Your task to perform on an android device: Search for Italian restaurants on Maps Image 0: 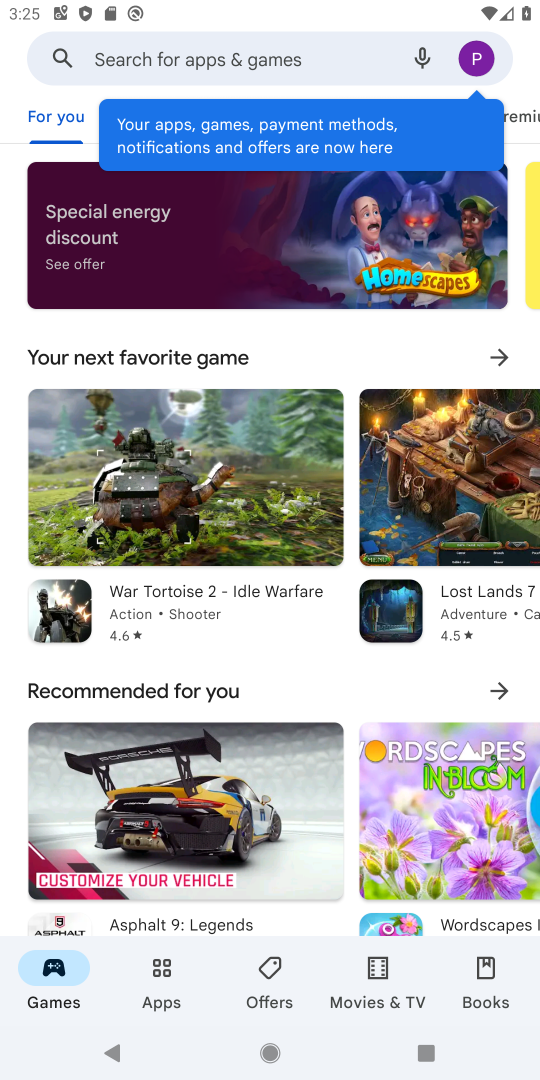
Step 0: press home button
Your task to perform on an android device: Search for Italian restaurants on Maps Image 1: 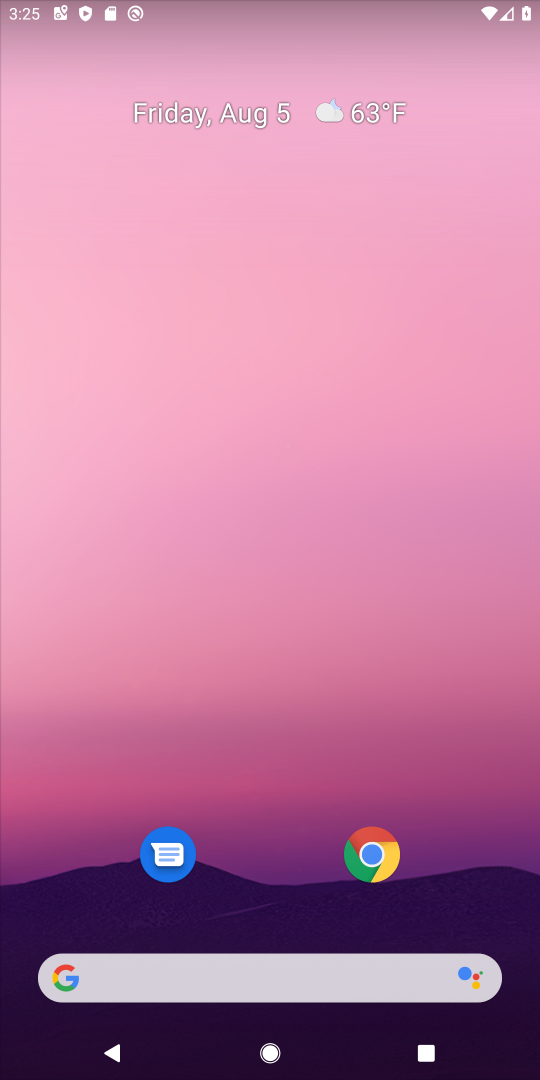
Step 1: drag from (47, 1015) to (288, 513)
Your task to perform on an android device: Search for Italian restaurants on Maps Image 2: 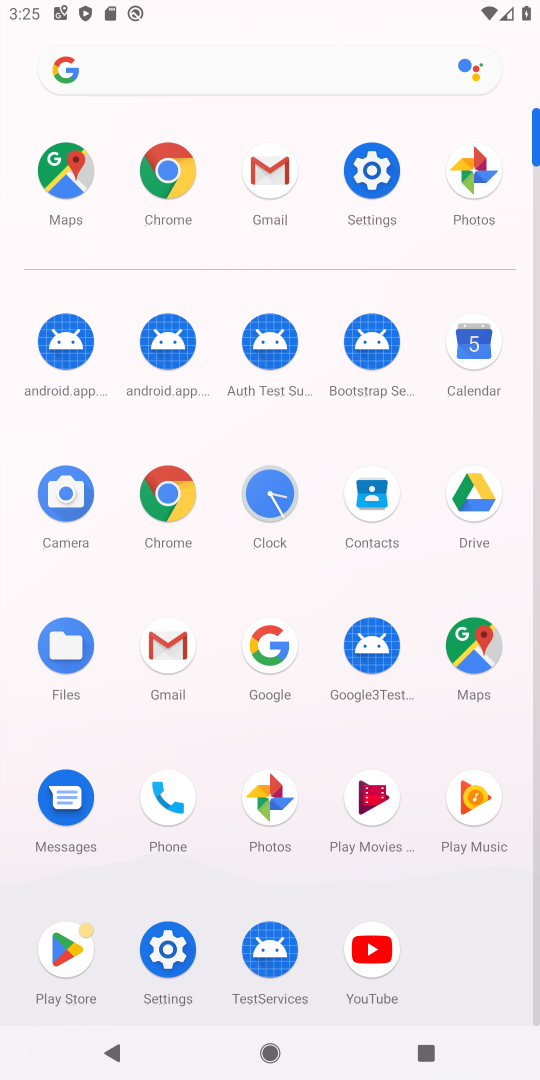
Step 2: click (484, 658)
Your task to perform on an android device: Search for Italian restaurants on Maps Image 3: 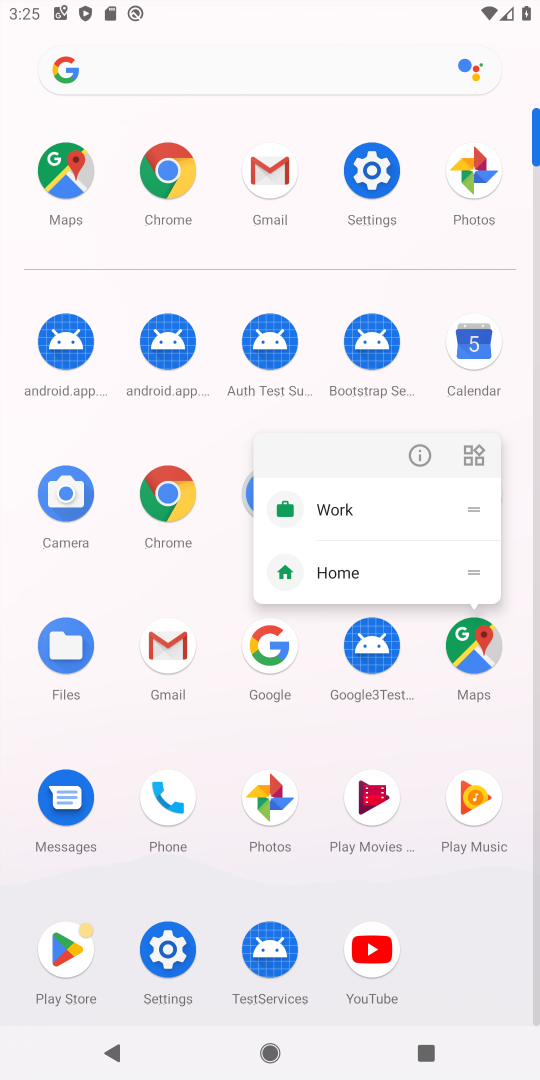
Step 3: click (484, 658)
Your task to perform on an android device: Search for Italian restaurants on Maps Image 4: 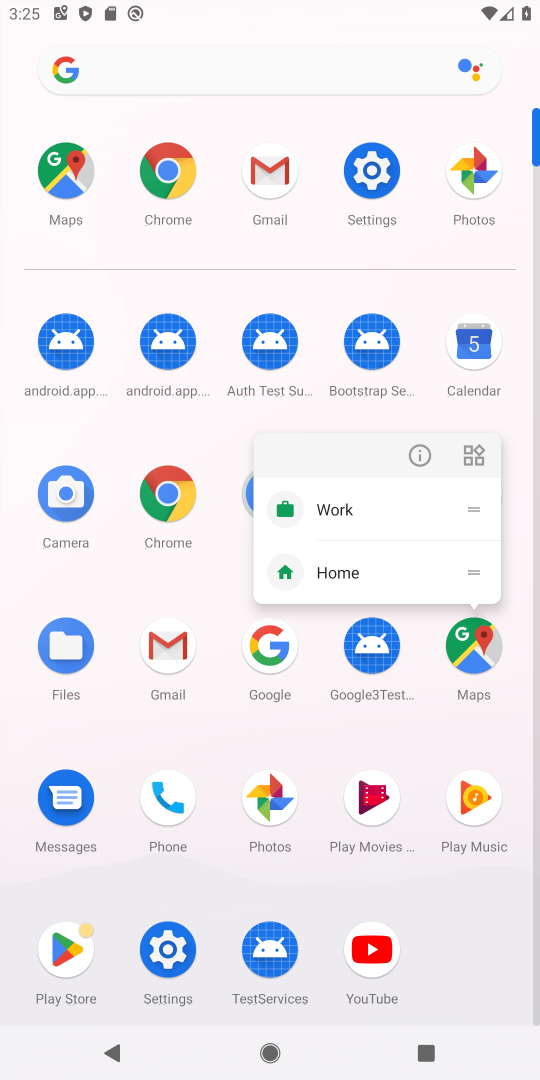
Step 4: click (484, 658)
Your task to perform on an android device: Search for Italian restaurants on Maps Image 5: 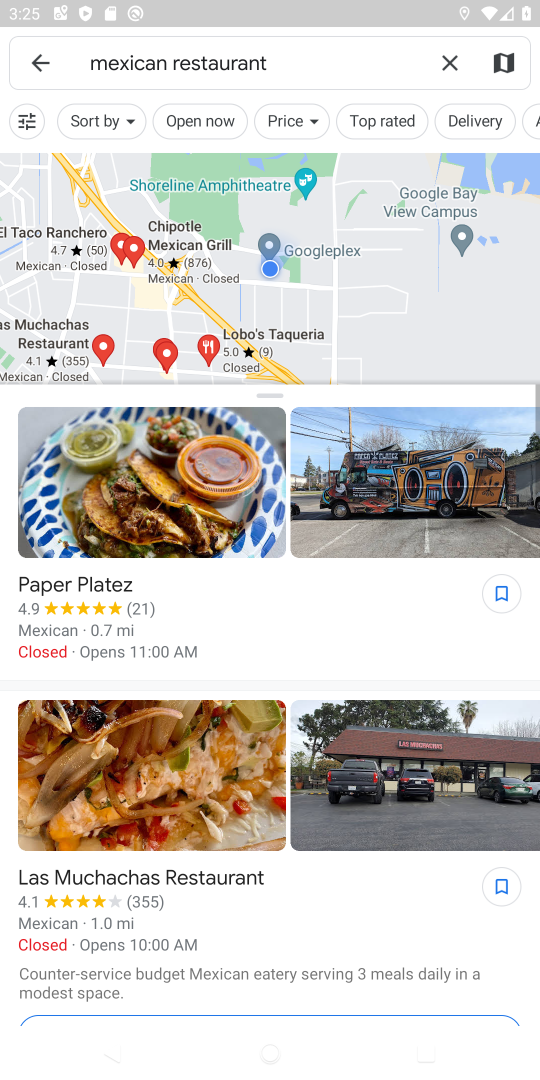
Step 5: click (447, 53)
Your task to perform on an android device: Search for Italian restaurants on Maps Image 6: 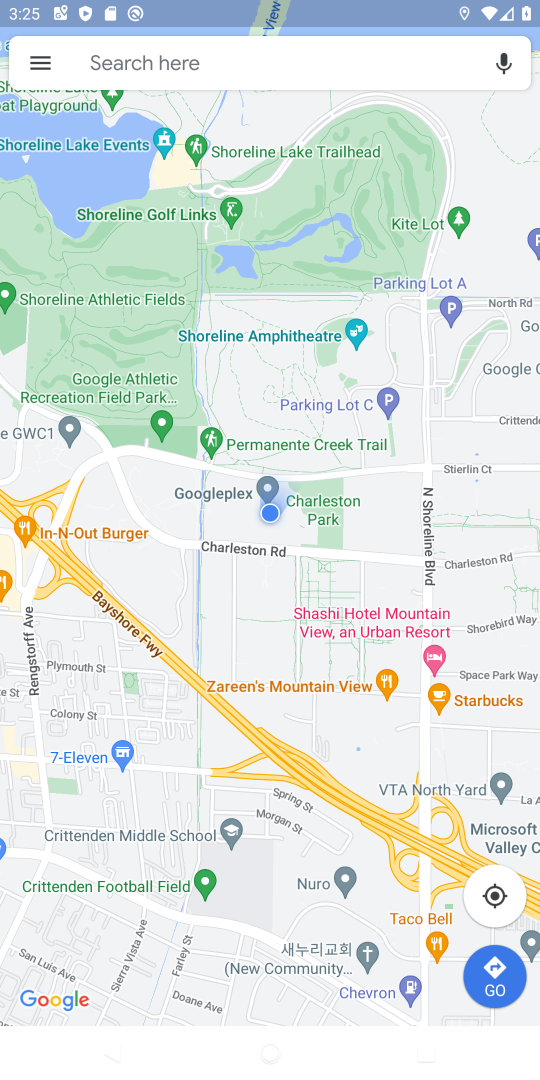
Step 6: click (103, 59)
Your task to perform on an android device: Search for Italian restaurants on Maps Image 7: 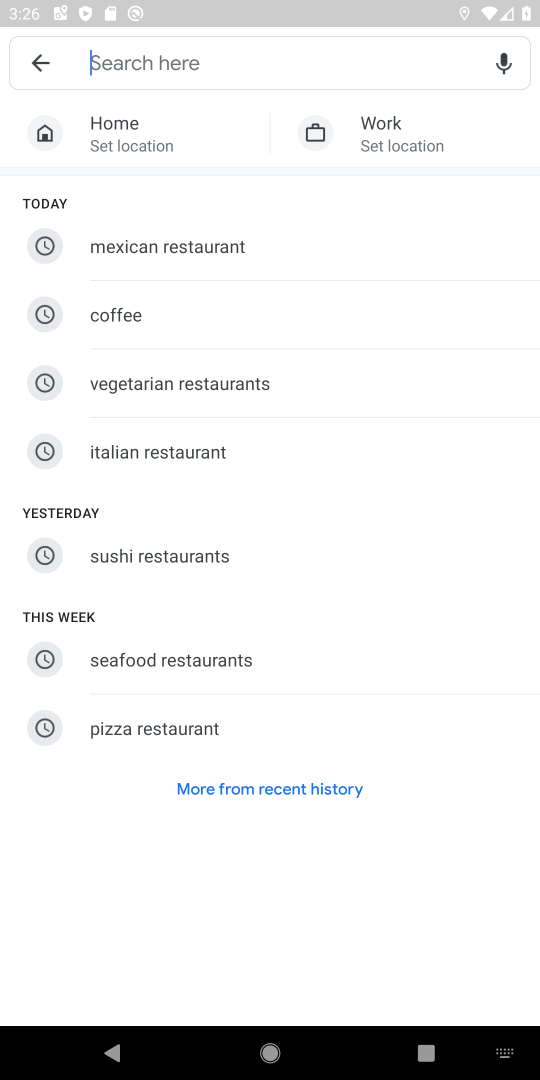
Step 7: type "Italian restaurants"
Your task to perform on an android device: Search for Italian restaurants on Maps Image 8: 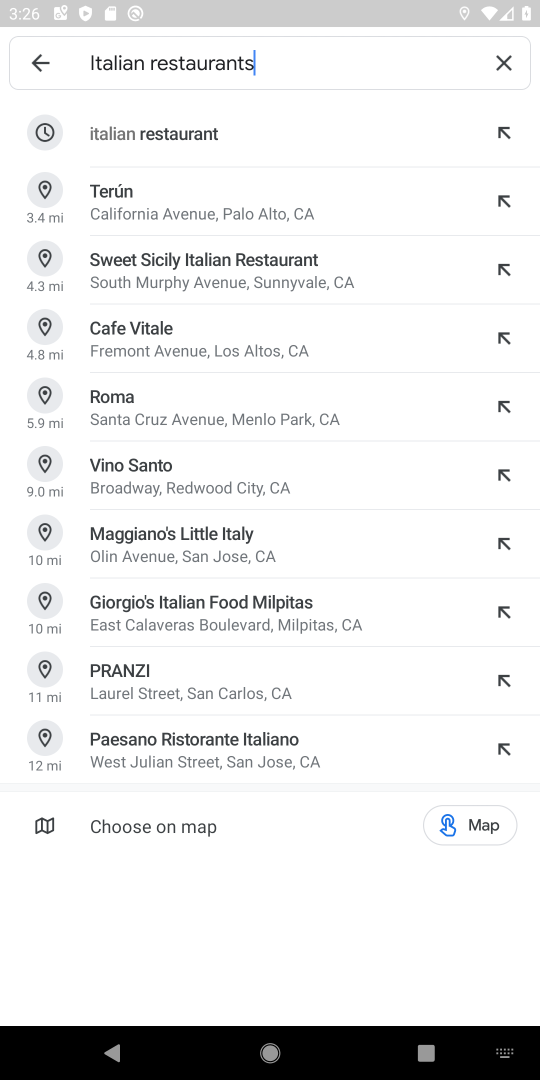
Step 8: click (161, 134)
Your task to perform on an android device: Search for Italian restaurants on Maps Image 9: 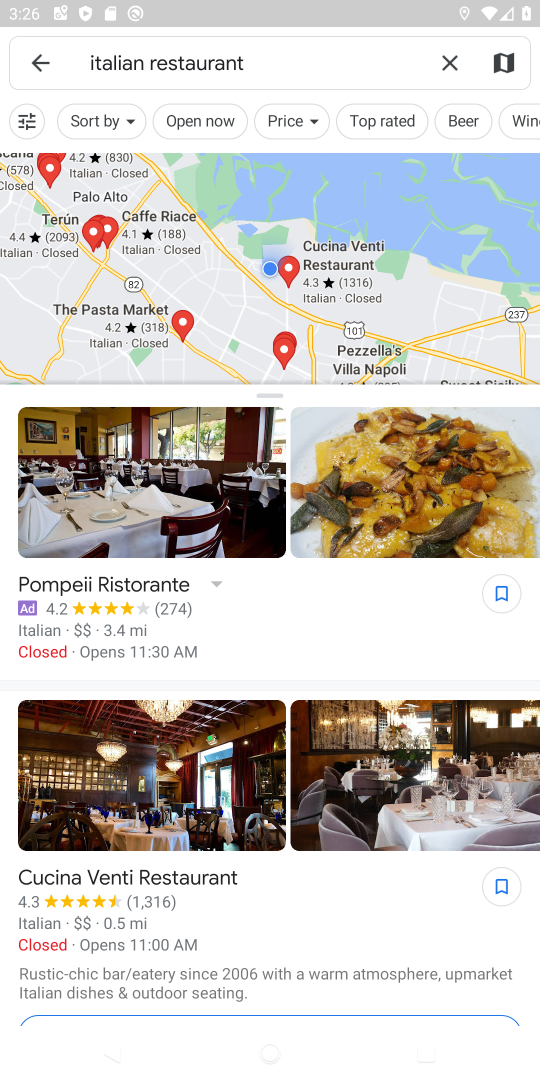
Step 9: task complete